Your task to perform on an android device: Go to settings Image 0: 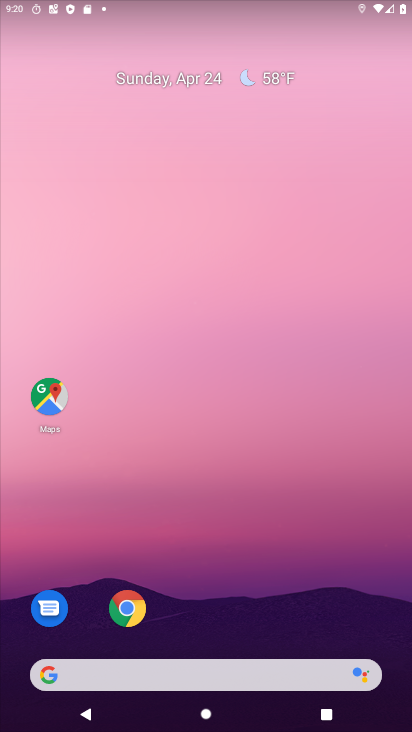
Step 0: drag from (333, 613) to (352, 118)
Your task to perform on an android device: Go to settings Image 1: 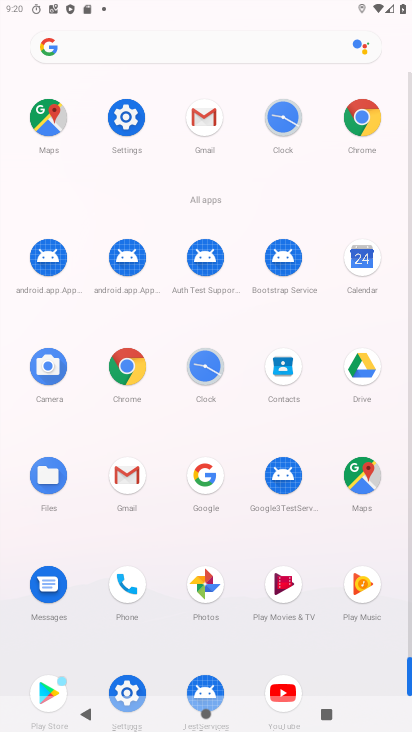
Step 1: click (116, 111)
Your task to perform on an android device: Go to settings Image 2: 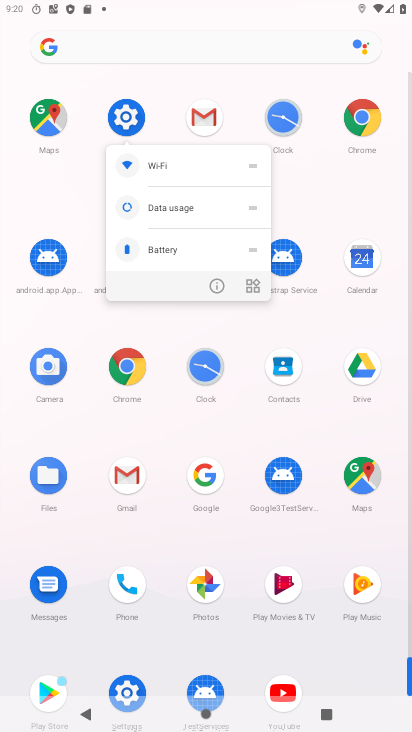
Step 2: click (122, 116)
Your task to perform on an android device: Go to settings Image 3: 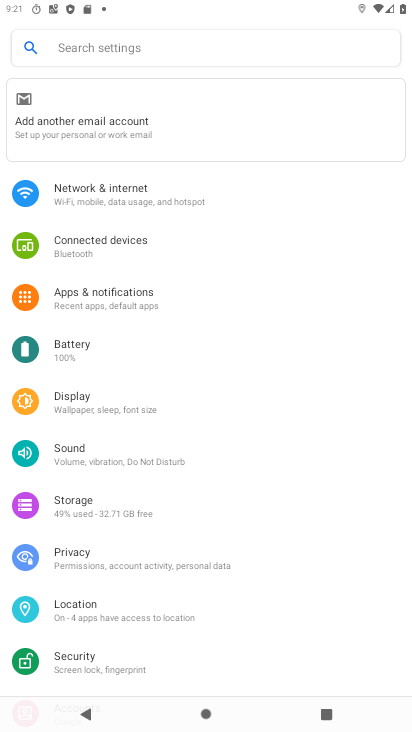
Step 3: task complete